Your task to perform on an android device: Show me the alarms in the clock app Image 0: 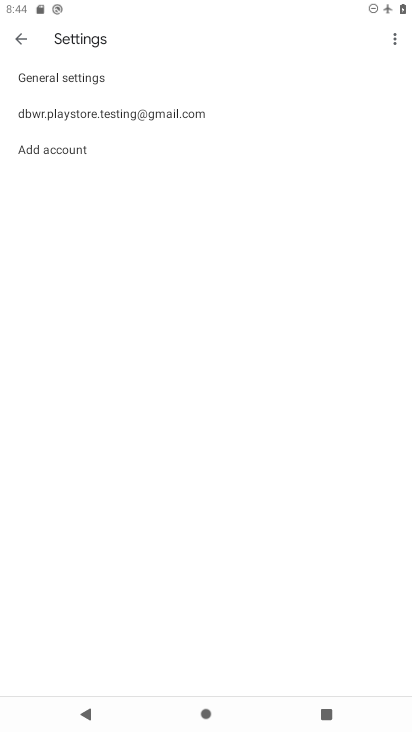
Step 0: press home button
Your task to perform on an android device: Show me the alarms in the clock app Image 1: 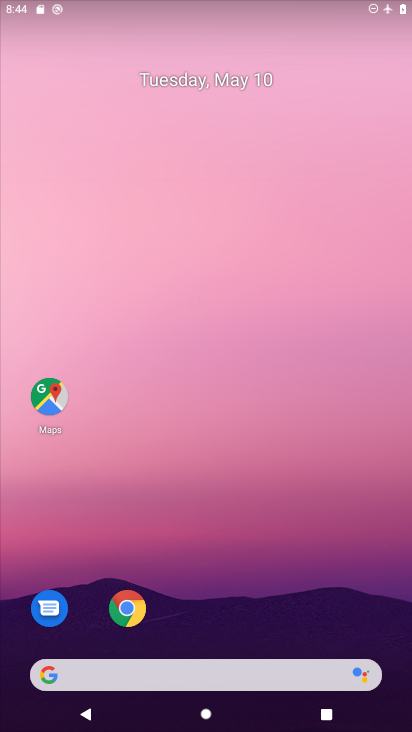
Step 1: drag from (235, 612) to (258, 322)
Your task to perform on an android device: Show me the alarms in the clock app Image 2: 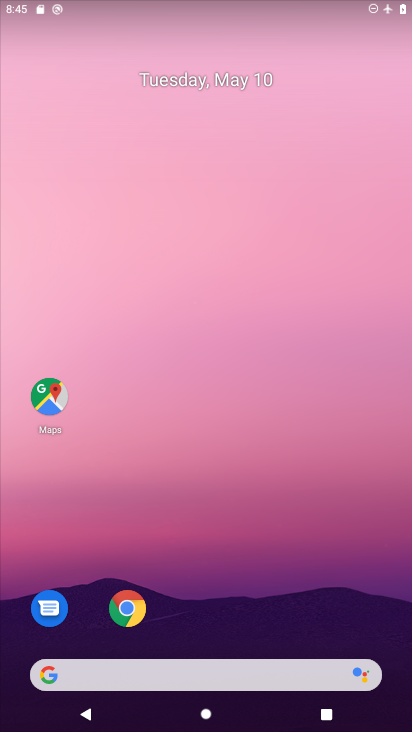
Step 2: drag from (244, 611) to (242, 337)
Your task to perform on an android device: Show me the alarms in the clock app Image 3: 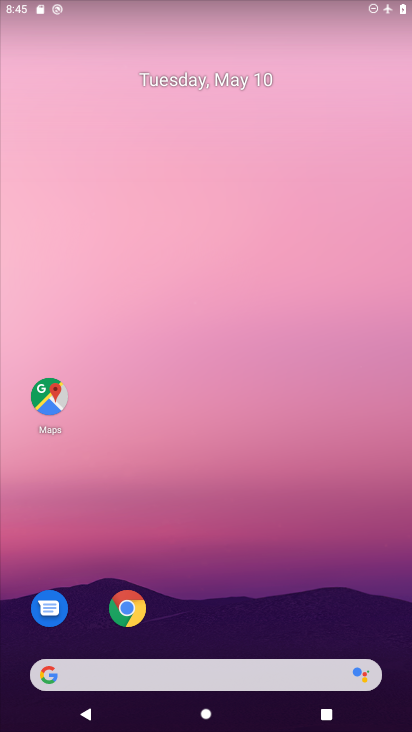
Step 3: drag from (284, 557) to (327, 219)
Your task to perform on an android device: Show me the alarms in the clock app Image 4: 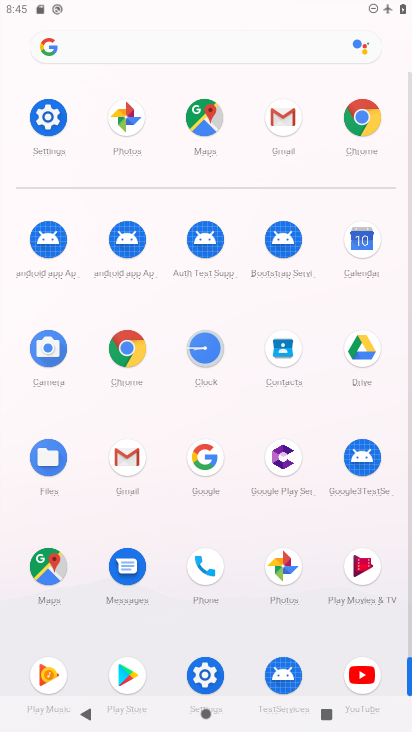
Step 4: click (197, 340)
Your task to perform on an android device: Show me the alarms in the clock app Image 5: 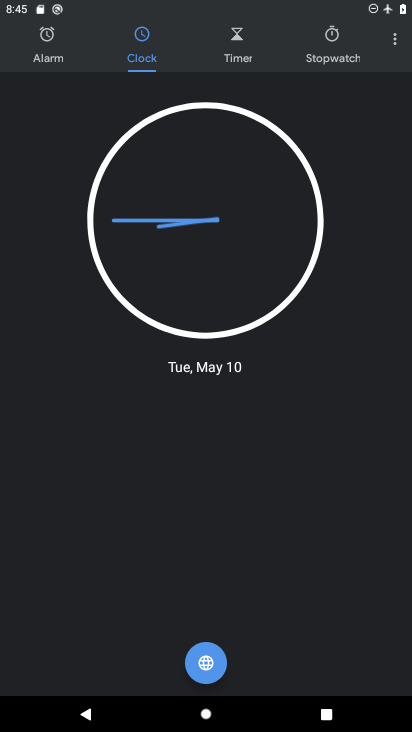
Step 5: click (44, 51)
Your task to perform on an android device: Show me the alarms in the clock app Image 6: 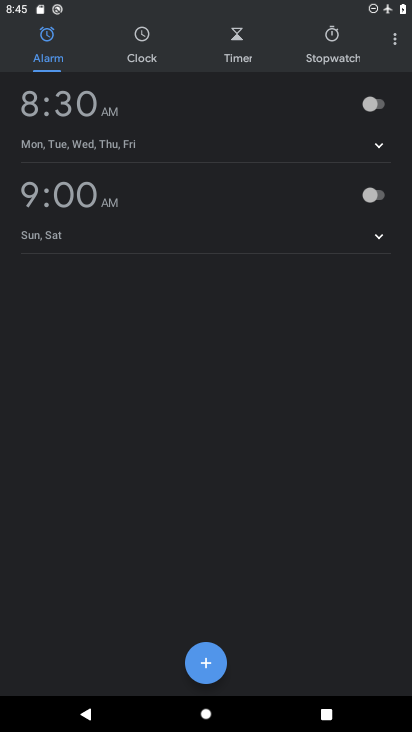
Step 6: task complete